Your task to perform on an android device: Open Chrome and go to the settings page Image 0: 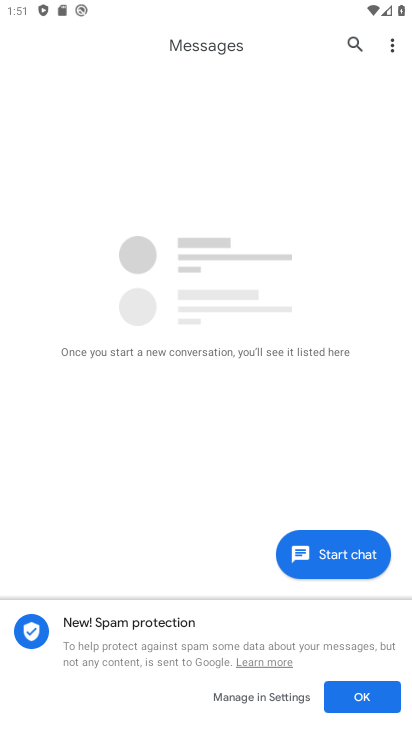
Step 0: press home button
Your task to perform on an android device: Open Chrome and go to the settings page Image 1: 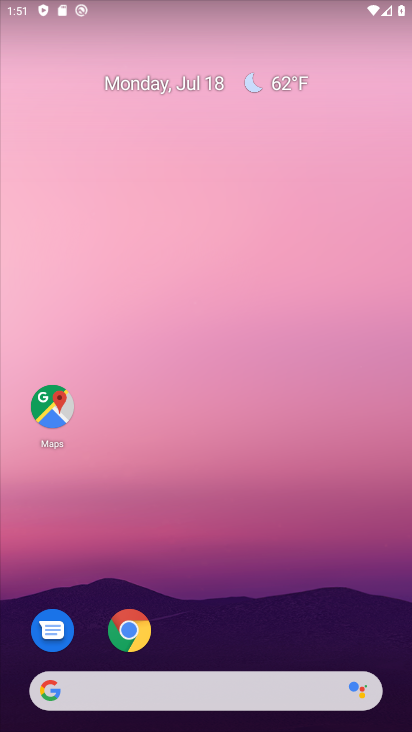
Step 1: click (138, 626)
Your task to perform on an android device: Open Chrome and go to the settings page Image 2: 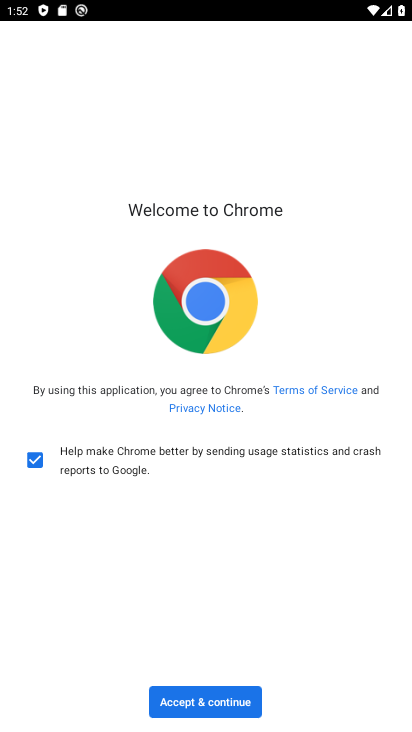
Step 2: click (204, 708)
Your task to perform on an android device: Open Chrome and go to the settings page Image 3: 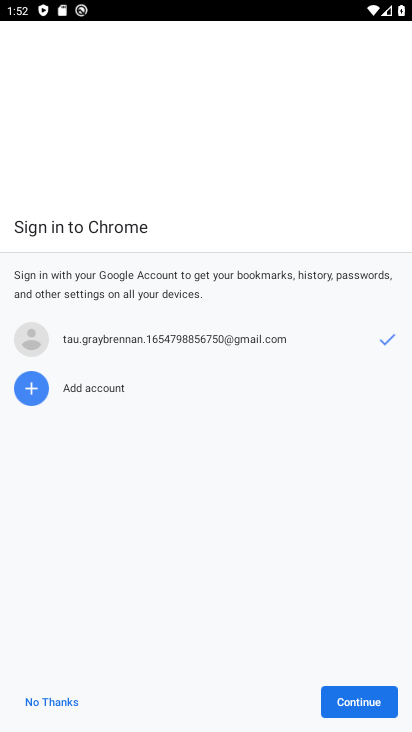
Step 3: click (359, 694)
Your task to perform on an android device: Open Chrome and go to the settings page Image 4: 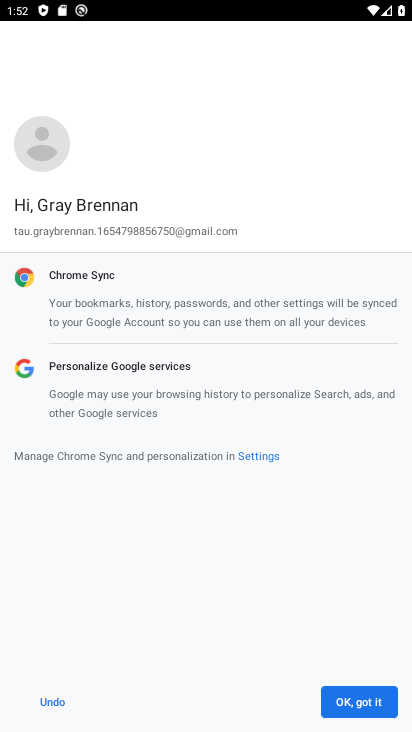
Step 4: click (350, 687)
Your task to perform on an android device: Open Chrome and go to the settings page Image 5: 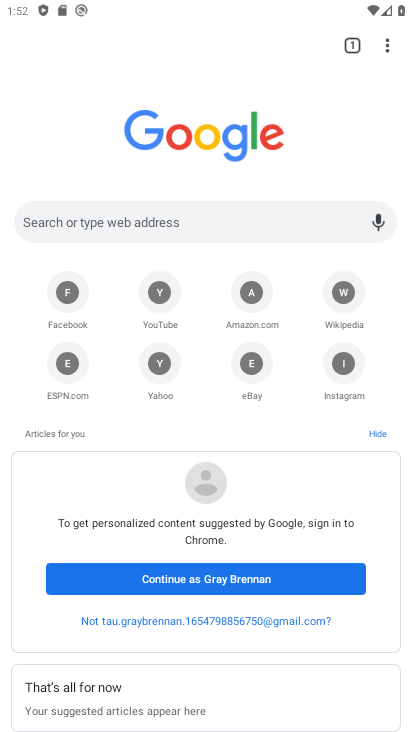
Step 5: click (388, 41)
Your task to perform on an android device: Open Chrome and go to the settings page Image 6: 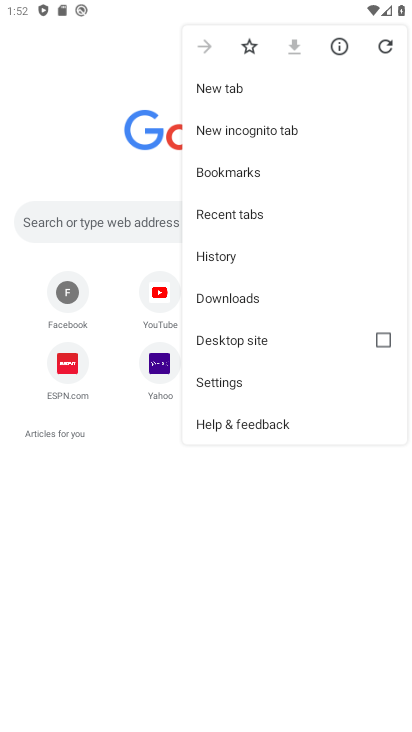
Step 6: click (225, 383)
Your task to perform on an android device: Open Chrome and go to the settings page Image 7: 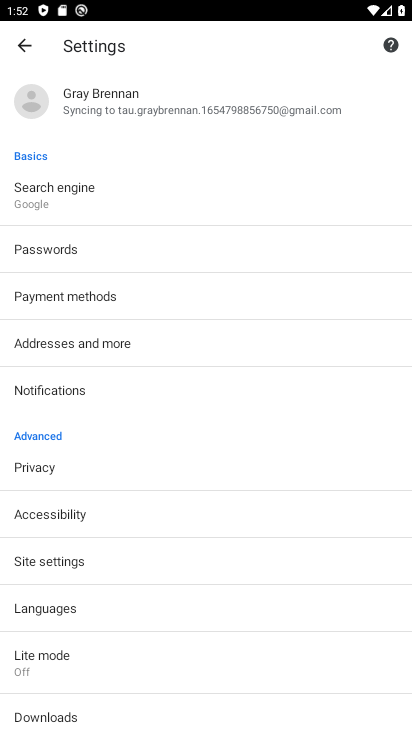
Step 7: task complete